Your task to perform on an android device: When is my next meeting? Image 0: 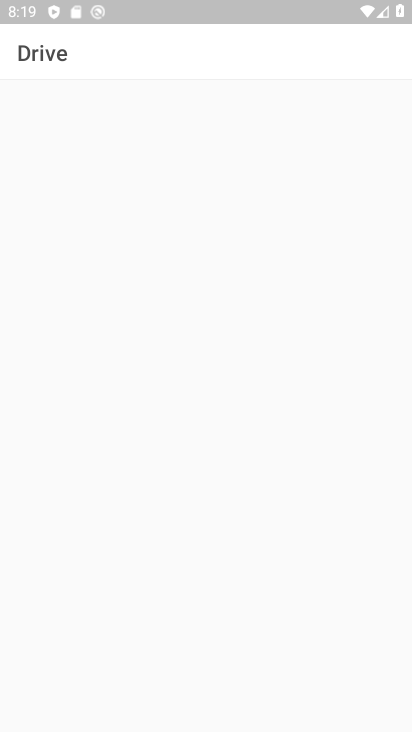
Step 0: press home button
Your task to perform on an android device: When is my next meeting? Image 1: 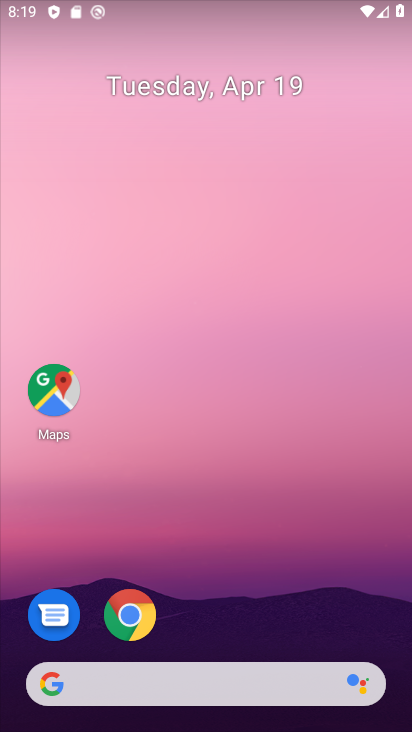
Step 1: drag from (211, 641) to (281, 15)
Your task to perform on an android device: When is my next meeting? Image 2: 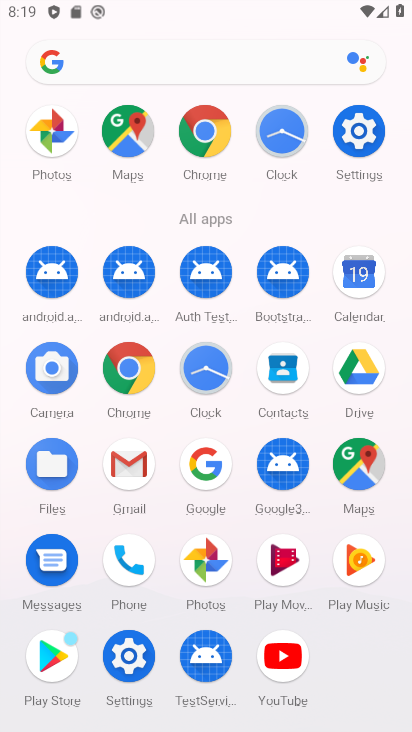
Step 2: click (356, 270)
Your task to perform on an android device: When is my next meeting? Image 3: 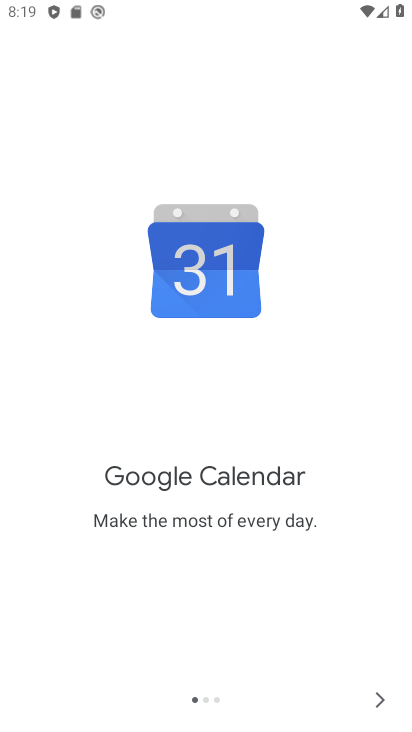
Step 3: click (374, 699)
Your task to perform on an android device: When is my next meeting? Image 4: 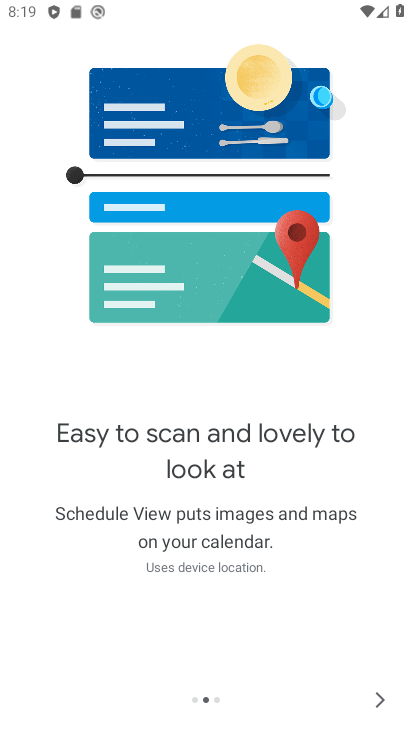
Step 4: click (374, 699)
Your task to perform on an android device: When is my next meeting? Image 5: 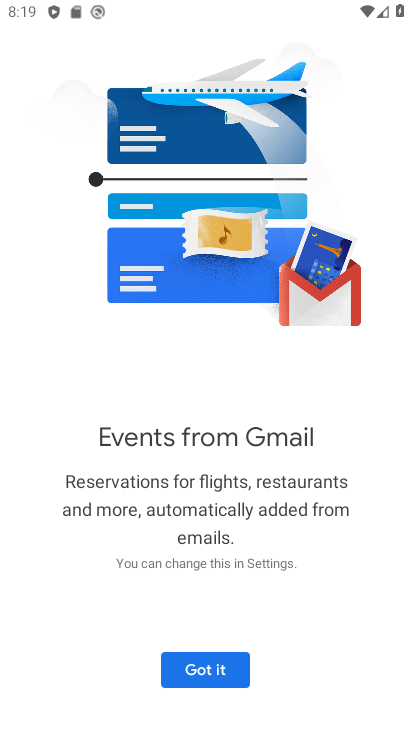
Step 5: click (218, 661)
Your task to perform on an android device: When is my next meeting? Image 6: 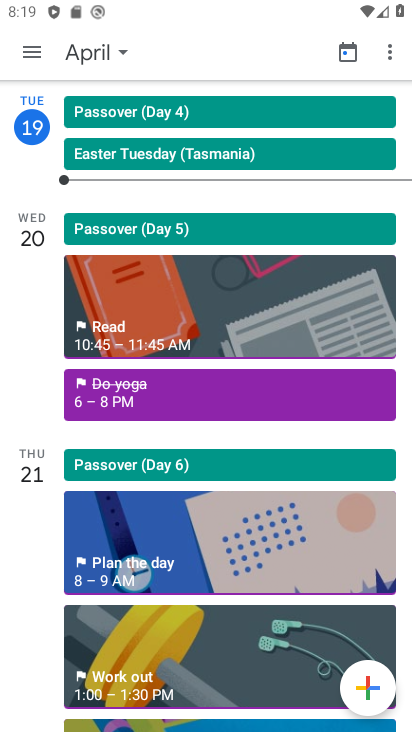
Step 6: click (112, 59)
Your task to perform on an android device: When is my next meeting? Image 7: 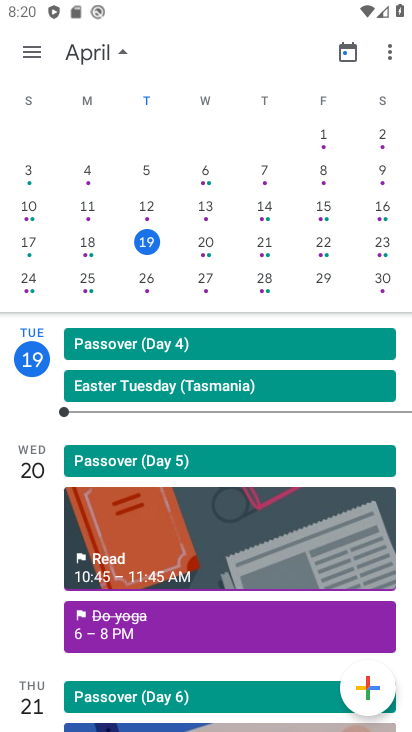
Step 7: click (207, 240)
Your task to perform on an android device: When is my next meeting? Image 8: 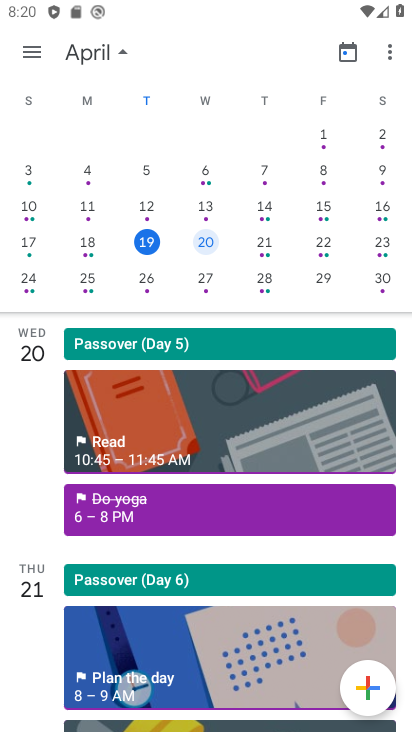
Step 8: click (266, 244)
Your task to perform on an android device: When is my next meeting? Image 9: 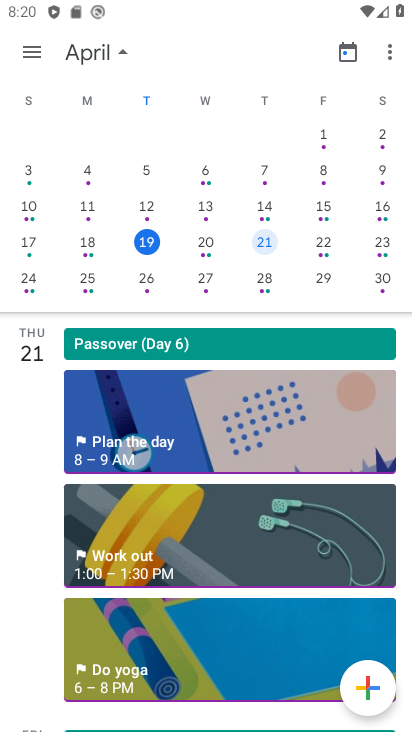
Step 9: click (319, 252)
Your task to perform on an android device: When is my next meeting? Image 10: 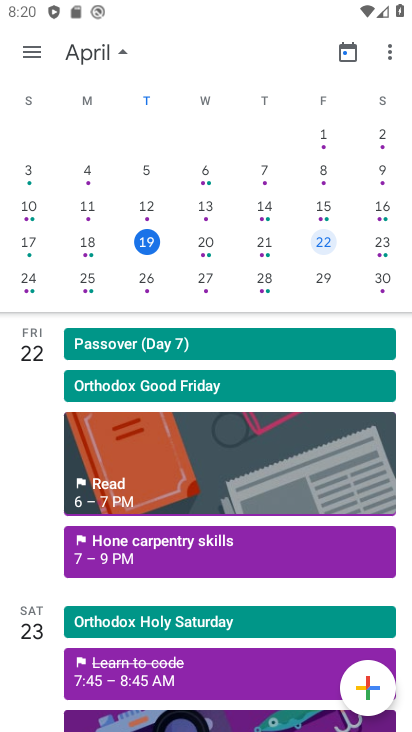
Step 10: click (385, 245)
Your task to perform on an android device: When is my next meeting? Image 11: 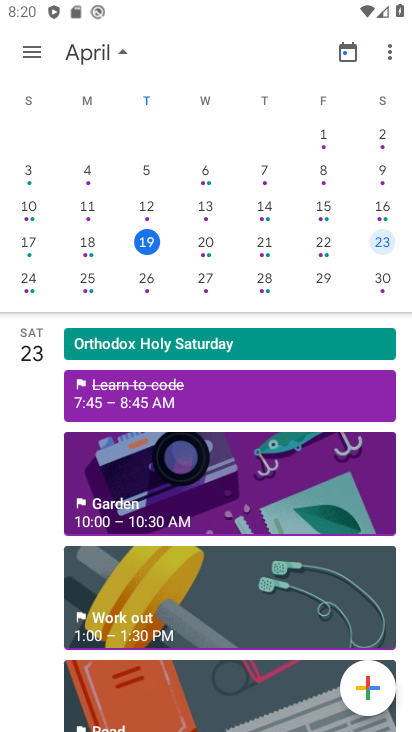
Step 11: click (34, 282)
Your task to perform on an android device: When is my next meeting? Image 12: 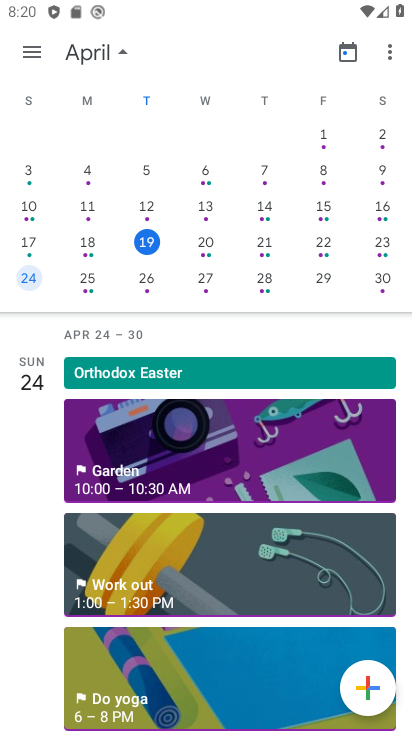
Step 12: click (83, 289)
Your task to perform on an android device: When is my next meeting? Image 13: 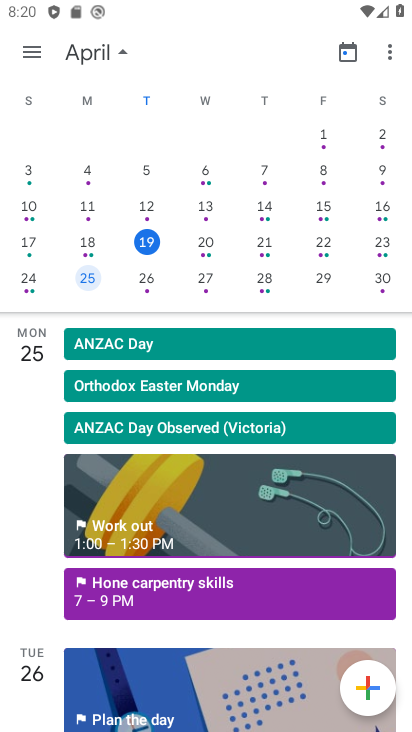
Step 13: click (149, 277)
Your task to perform on an android device: When is my next meeting? Image 14: 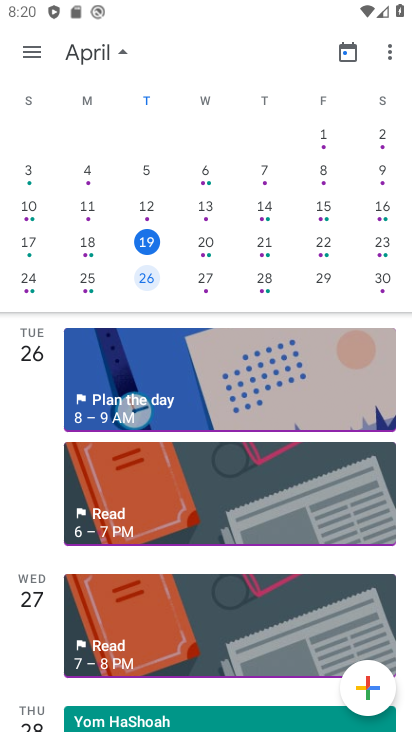
Step 14: click (199, 284)
Your task to perform on an android device: When is my next meeting? Image 15: 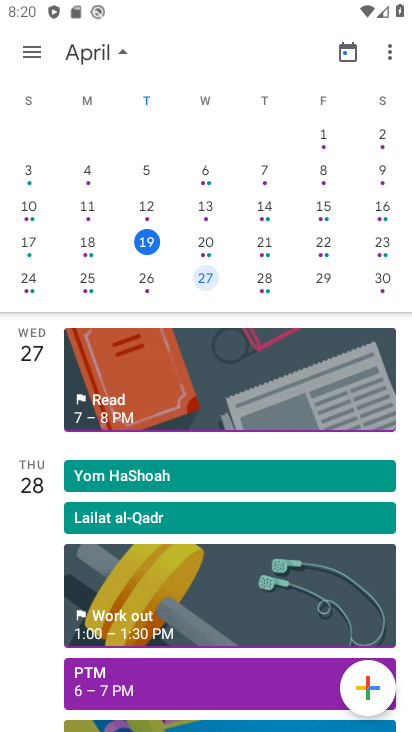
Step 15: click (151, 688)
Your task to perform on an android device: When is my next meeting? Image 16: 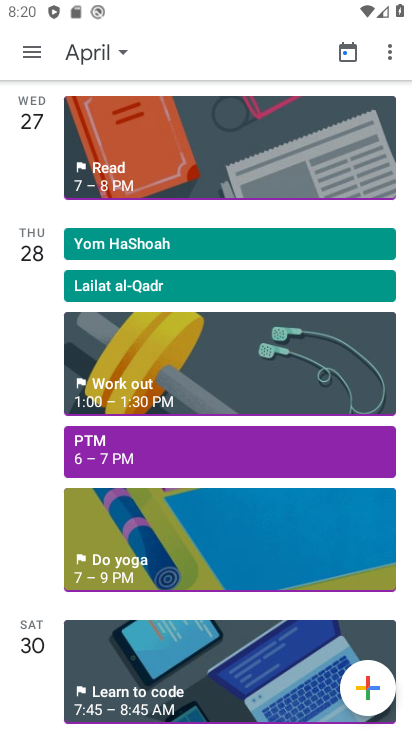
Step 16: click (150, 455)
Your task to perform on an android device: When is my next meeting? Image 17: 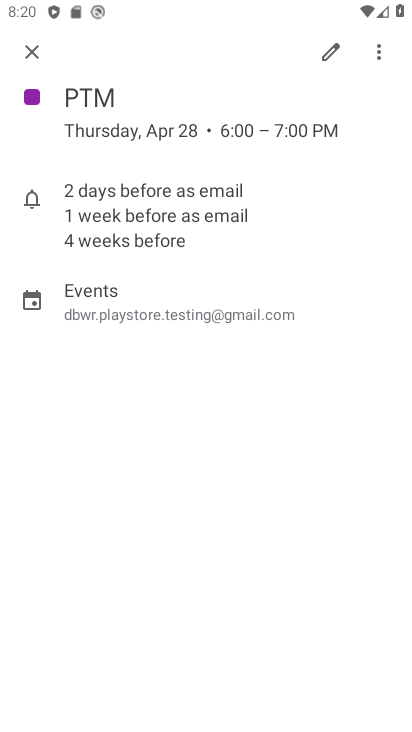
Step 17: task complete